Your task to perform on an android device: move a message to another label in the gmail app Image 0: 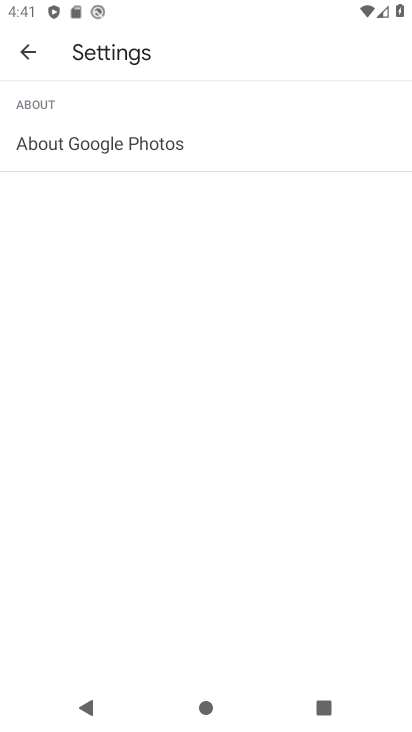
Step 0: press home button
Your task to perform on an android device: move a message to another label in the gmail app Image 1: 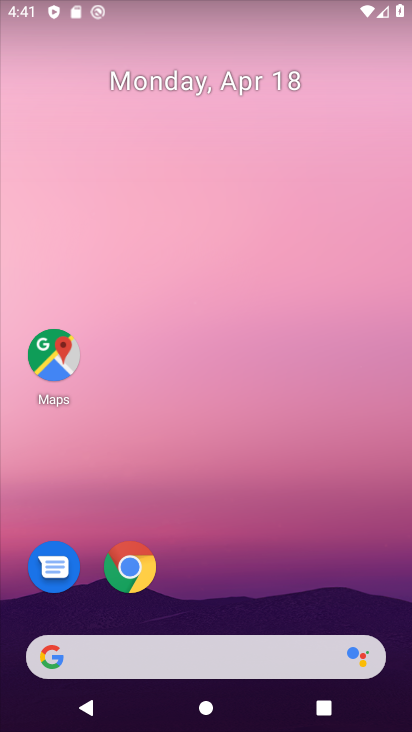
Step 1: drag from (225, 615) to (333, 44)
Your task to perform on an android device: move a message to another label in the gmail app Image 2: 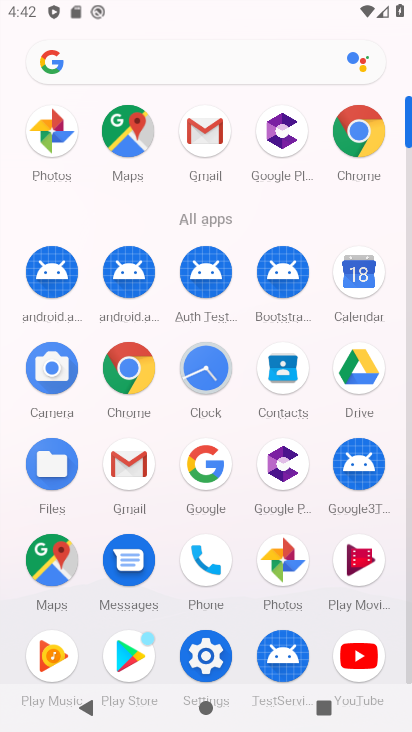
Step 2: click (126, 470)
Your task to perform on an android device: move a message to another label in the gmail app Image 3: 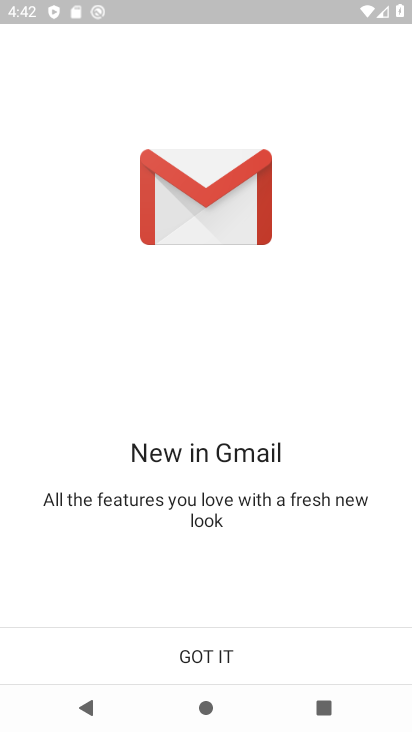
Step 3: click (226, 646)
Your task to perform on an android device: move a message to another label in the gmail app Image 4: 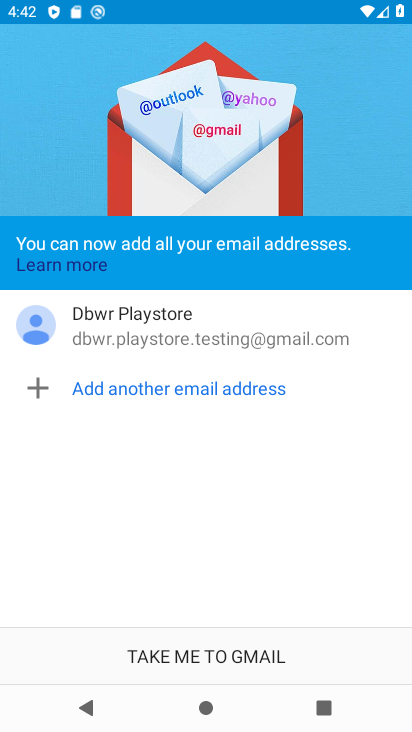
Step 4: click (192, 659)
Your task to perform on an android device: move a message to another label in the gmail app Image 5: 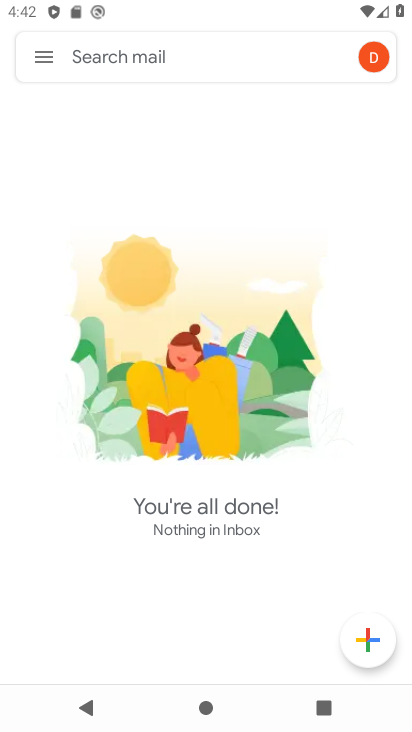
Step 5: click (53, 59)
Your task to perform on an android device: move a message to another label in the gmail app Image 6: 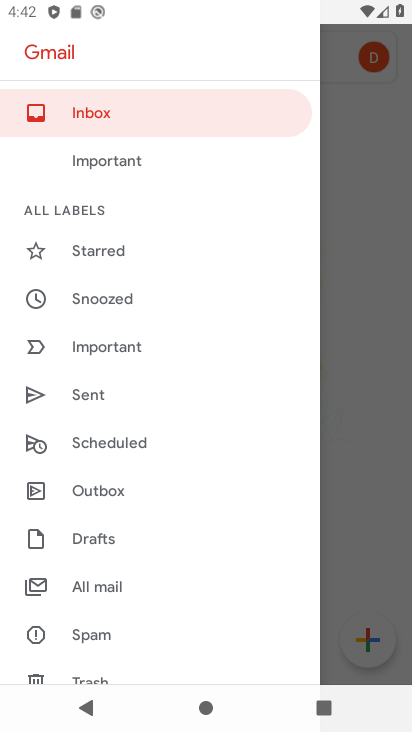
Step 6: drag from (142, 479) to (146, 363)
Your task to perform on an android device: move a message to another label in the gmail app Image 7: 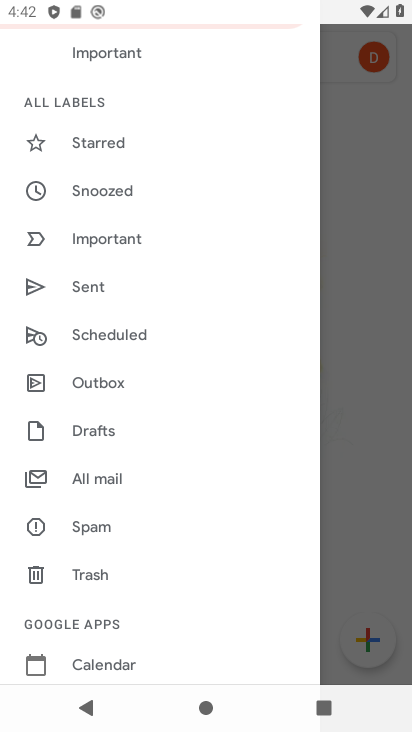
Step 7: drag from (144, 484) to (141, 363)
Your task to perform on an android device: move a message to another label in the gmail app Image 8: 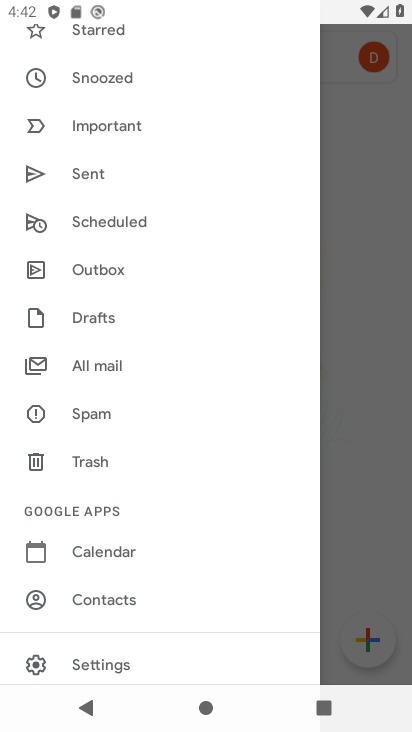
Step 8: drag from (131, 459) to (153, 364)
Your task to perform on an android device: move a message to another label in the gmail app Image 9: 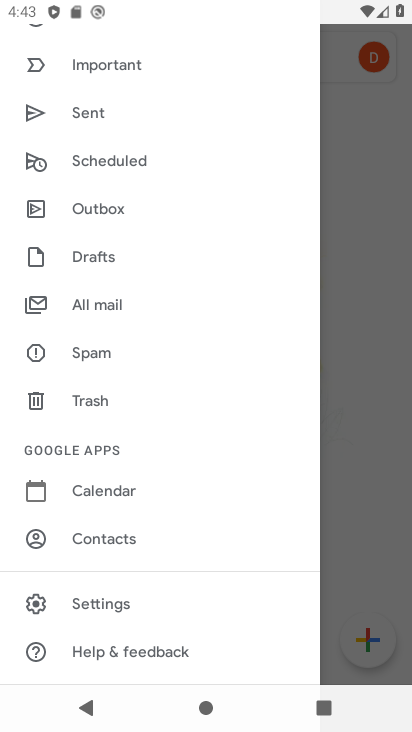
Step 9: click (101, 301)
Your task to perform on an android device: move a message to another label in the gmail app Image 10: 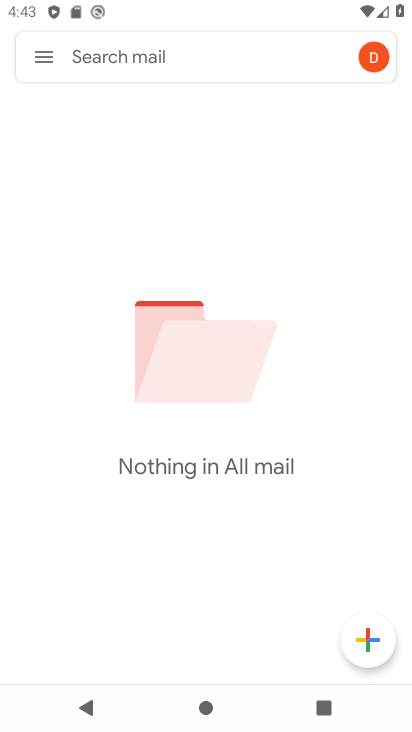
Step 10: task complete